Your task to perform on an android device: choose inbox layout in the gmail app Image 0: 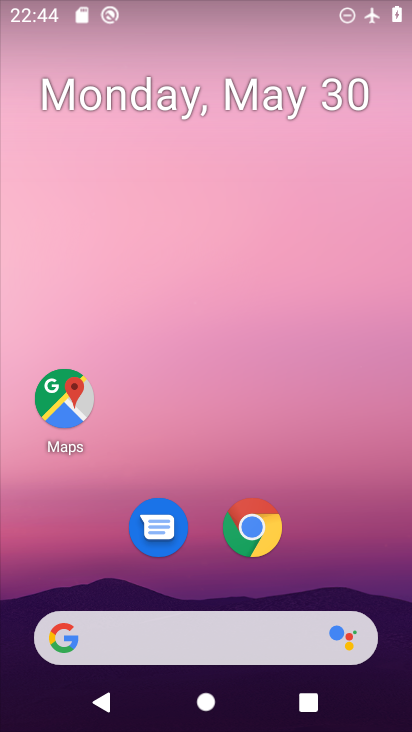
Step 0: drag from (350, 569) to (313, 289)
Your task to perform on an android device: choose inbox layout in the gmail app Image 1: 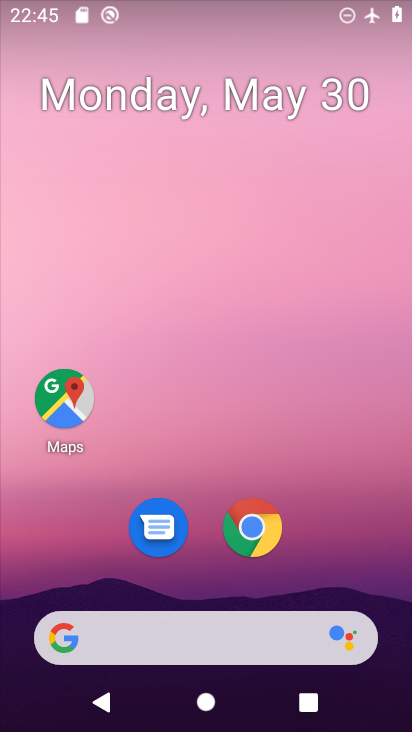
Step 1: drag from (309, 544) to (263, 97)
Your task to perform on an android device: choose inbox layout in the gmail app Image 2: 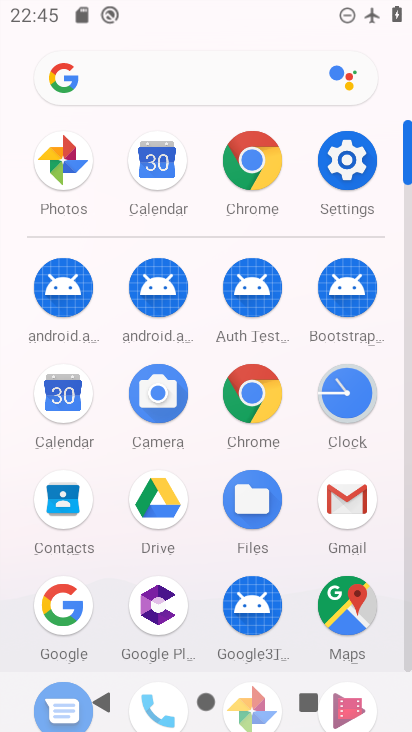
Step 2: click (73, 593)
Your task to perform on an android device: choose inbox layout in the gmail app Image 3: 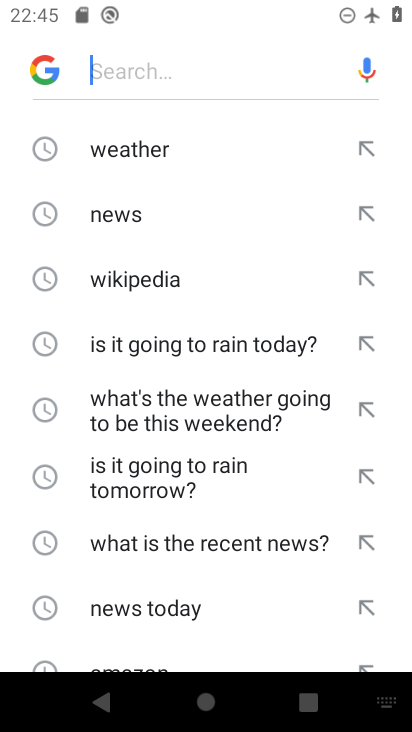
Step 3: press back button
Your task to perform on an android device: choose inbox layout in the gmail app Image 4: 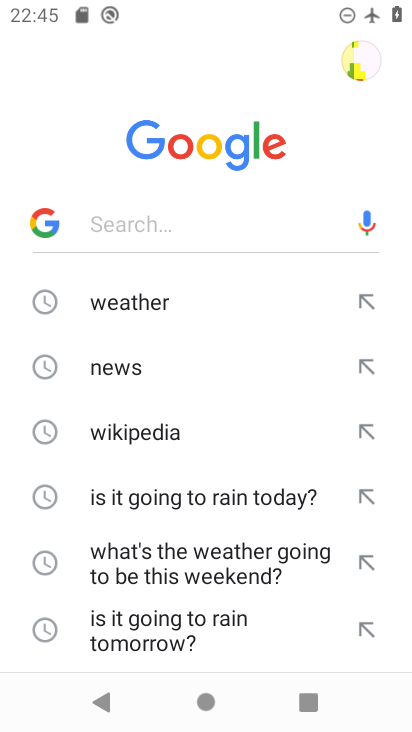
Step 4: press home button
Your task to perform on an android device: choose inbox layout in the gmail app Image 5: 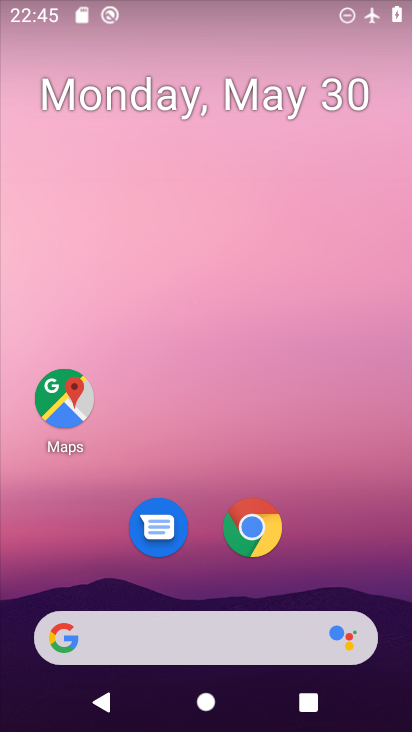
Step 5: drag from (175, 561) to (222, 175)
Your task to perform on an android device: choose inbox layout in the gmail app Image 6: 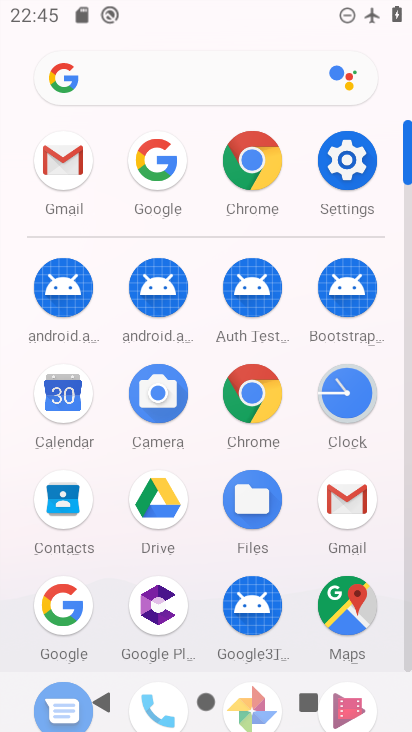
Step 6: click (346, 502)
Your task to perform on an android device: choose inbox layout in the gmail app Image 7: 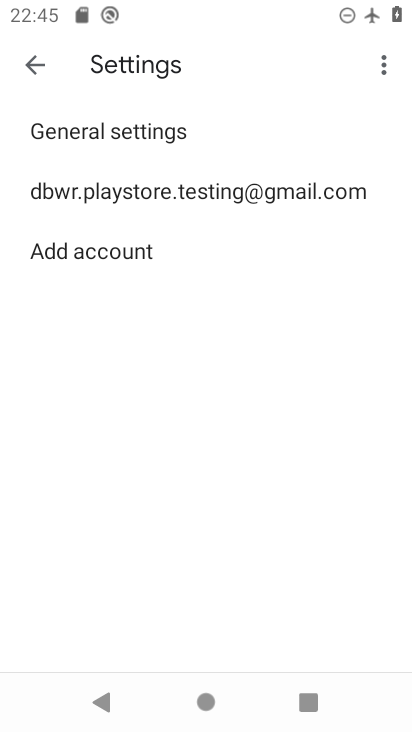
Step 7: click (42, 59)
Your task to perform on an android device: choose inbox layout in the gmail app Image 8: 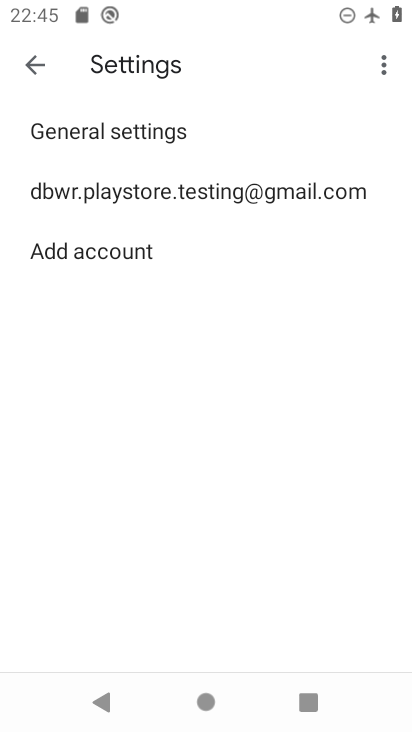
Step 8: click (42, 59)
Your task to perform on an android device: choose inbox layout in the gmail app Image 9: 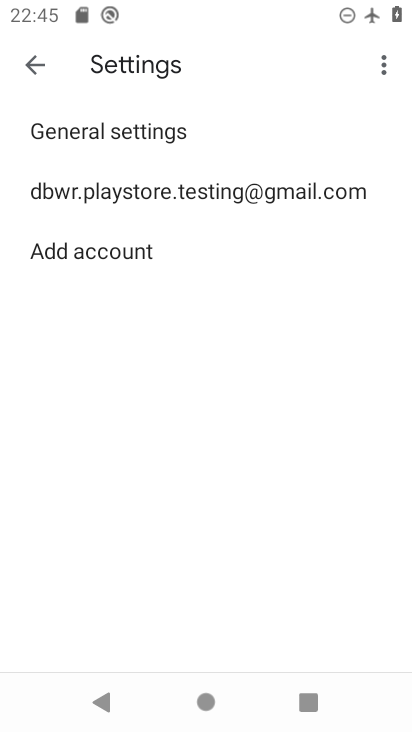
Step 9: click (41, 60)
Your task to perform on an android device: choose inbox layout in the gmail app Image 10: 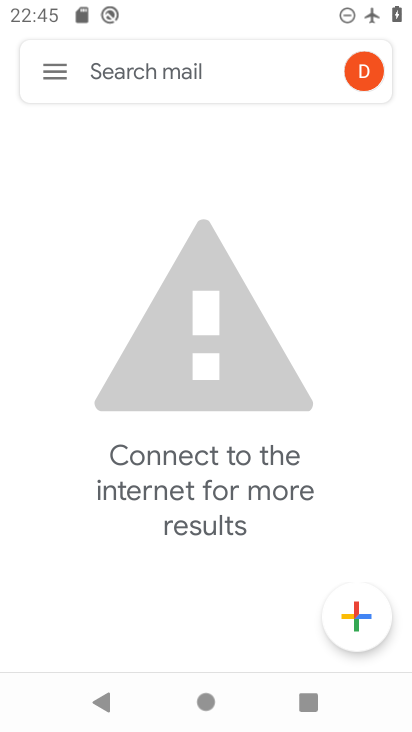
Step 10: click (156, 187)
Your task to perform on an android device: choose inbox layout in the gmail app Image 11: 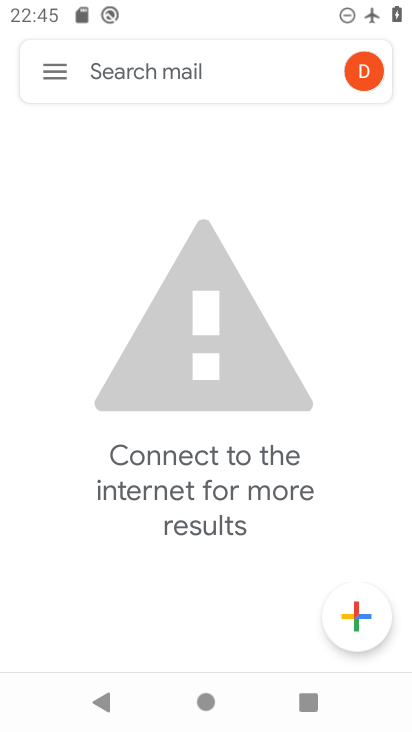
Step 11: click (50, 64)
Your task to perform on an android device: choose inbox layout in the gmail app Image 12: 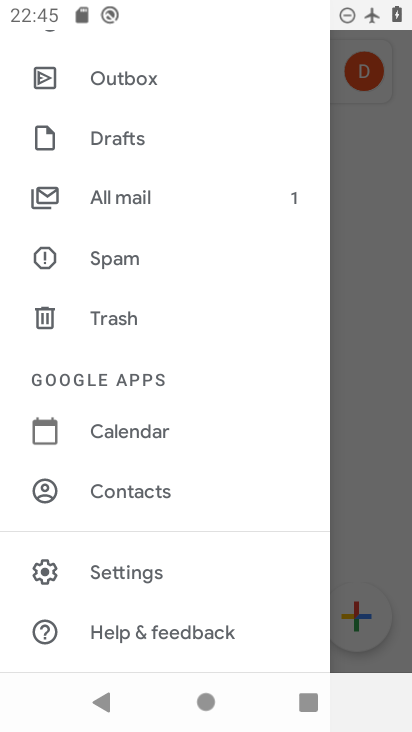
Step 12: click (174, 574)
Your task to perform on an android device: choose inbox layout in the gmail app Image 13: 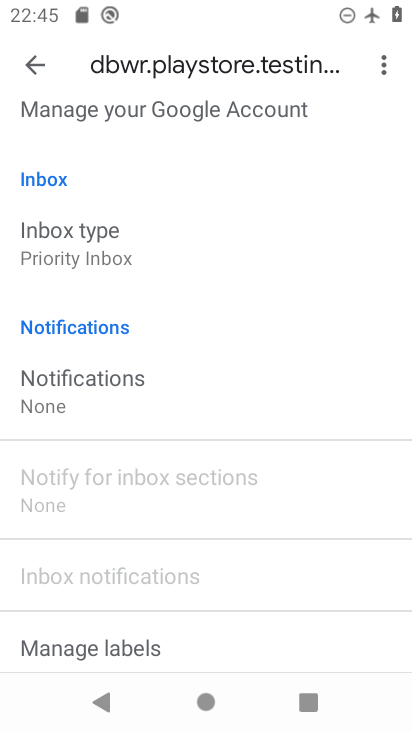
Step 13: drag from (185, 528) to (200, 279)
Your task to perform on an android device: choose inbox layout in the gmail app Image 14: 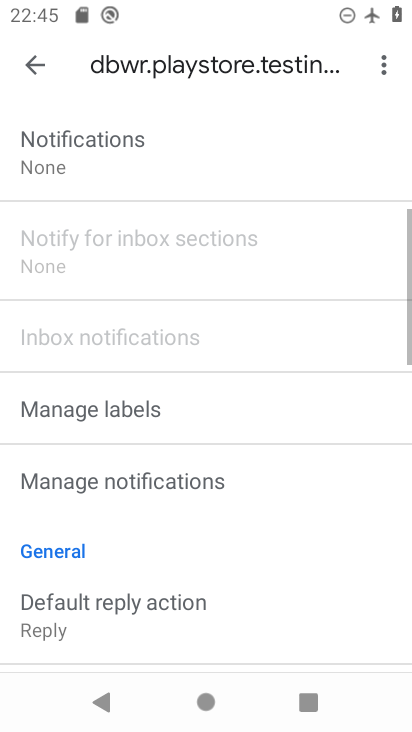
Step 14: drag from (200, 509) to (249, 129)
Your task to perform on an android device: choose inbox layout in the gmail app Image 15: 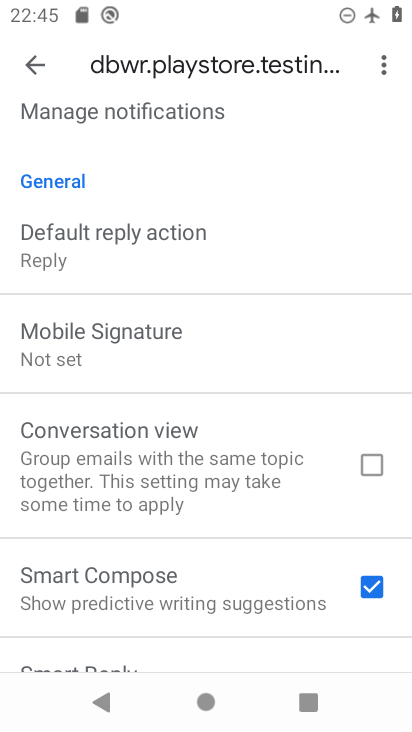
Step 15: drag from (157, 521) to (243, 265)
Your task to perform on an android device: choose inbox layout in the gmail app Image 16: 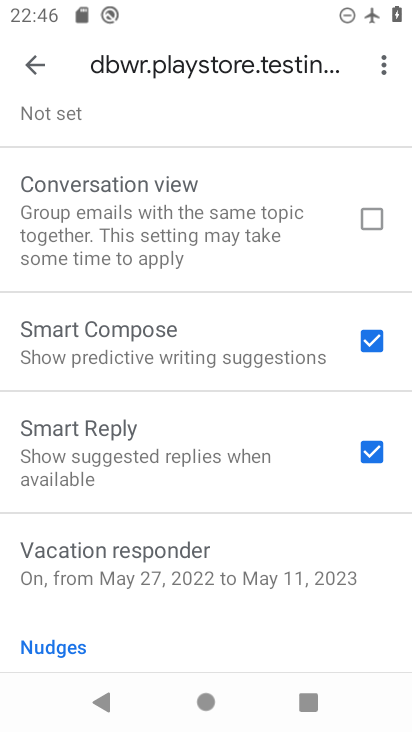
Step 16: drag from (214, 563) to (244, 221)
Your task to perform on an android device: choose inbox layout in the gmail app Image 17: 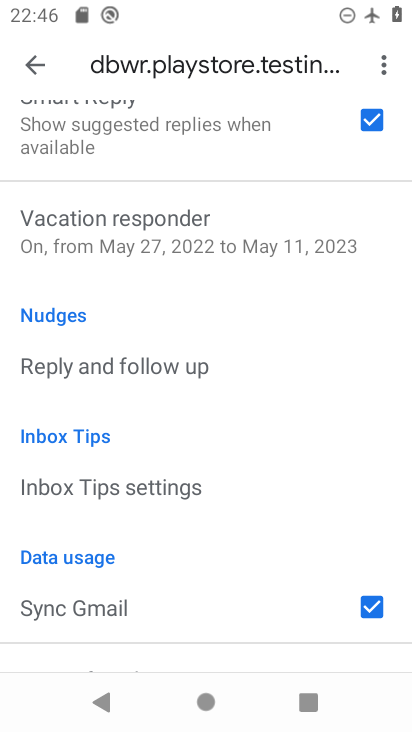
Step 17: drag from (160, 575) to (223, 346)
Your task to perform on an android device: choose inbox layout in the gmail app Image 18: 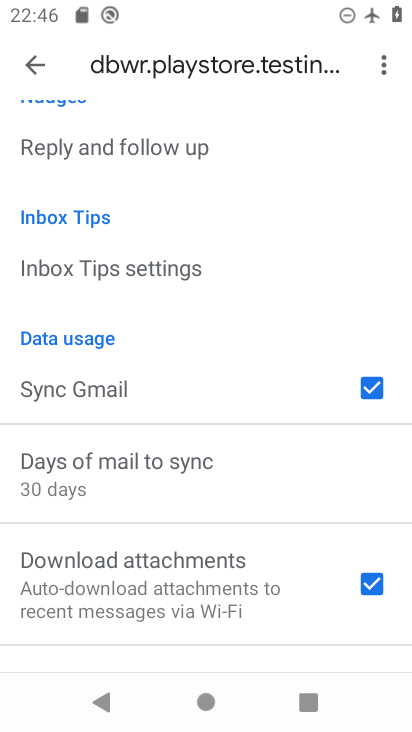
Step 18: drag from (201, 221) to (186, 683)
Your task to perform on an android device: choose inbox layout in the gmail app Image 19: 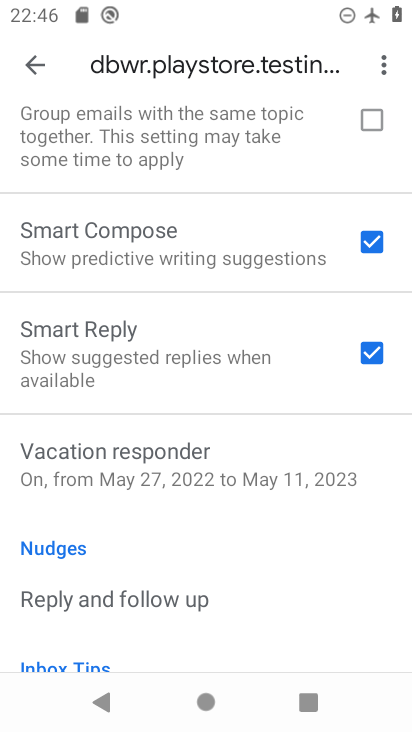
Step 19: drag from (206, 192) to (240, 471)
Your task to perform on an android device: choose inbox layout in the gmail app Image 20: 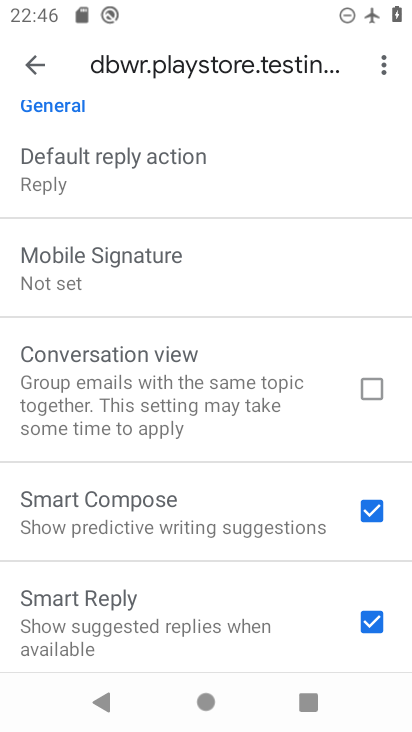
Step 20: drag from (196, 210) to (260, 694)
Your task to perform on an android device: choose inbox layout in the gmail app Image 21: 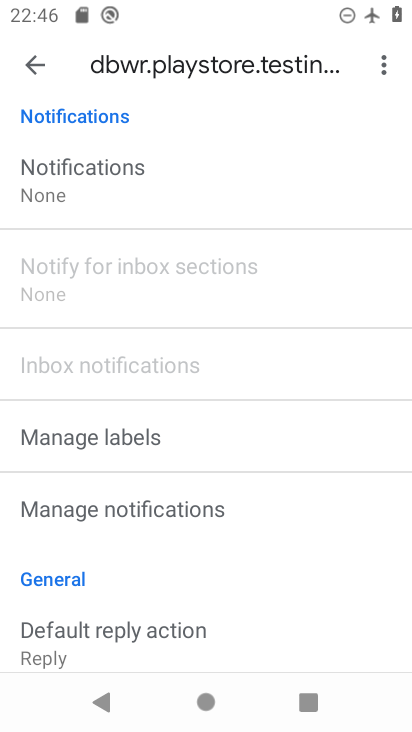
Step 21: drag from (156, 197) to (211, 567)
Your task to perform on an android device: choose inbox layout in the gmail app Image 22: 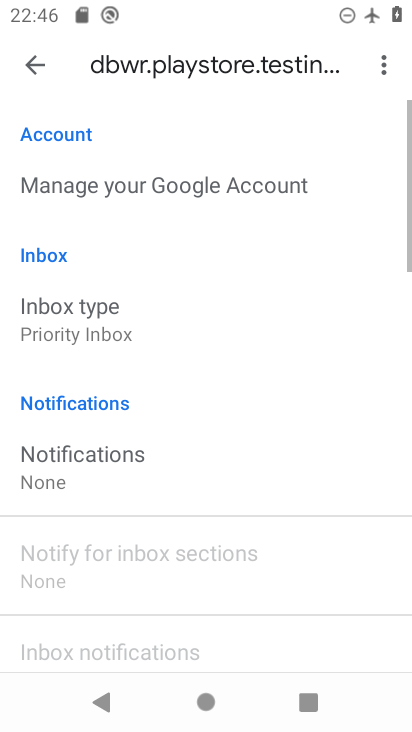
Step 22: click (157, 321)
Your task to perform on an android device: choose inbox layout in the gmail app Image 23: 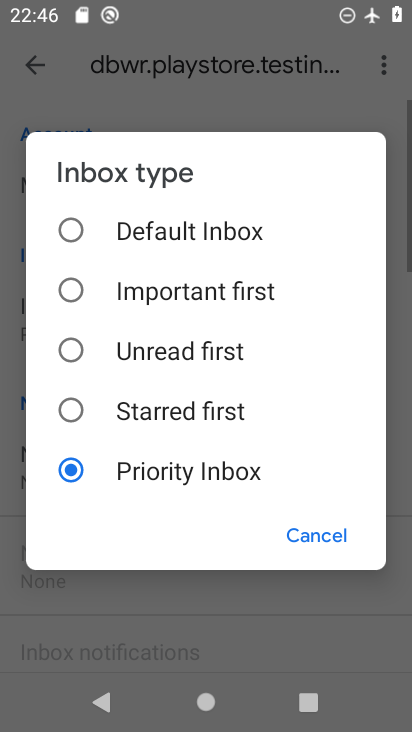
Step 23: click (154, 384)
Your task to perform on an android device: choose inbox layout in the gmail app Image 24: 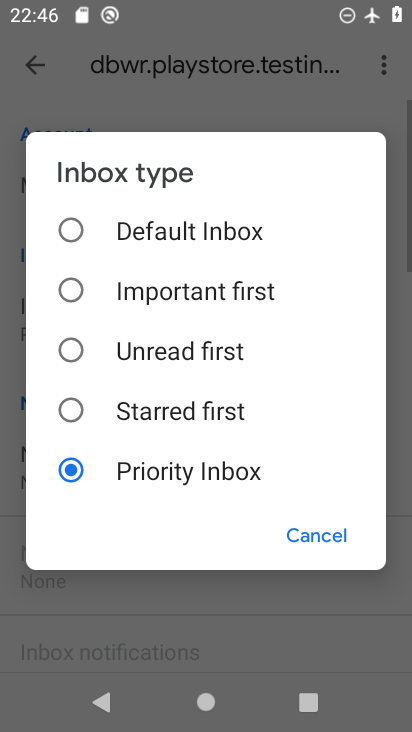
Step 24: click (160, 346)
Your task to perform on an android device: choose inbox layout in the gmail app Image 25: 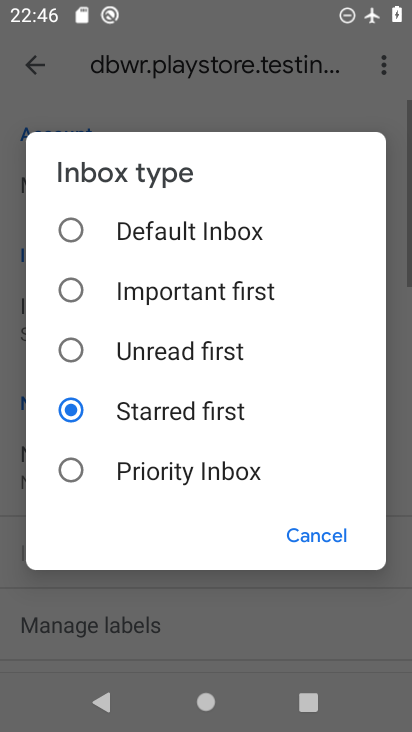
Step 25: task complete